Your task to perform on an android device: empty trash in the gmail app Image 0: 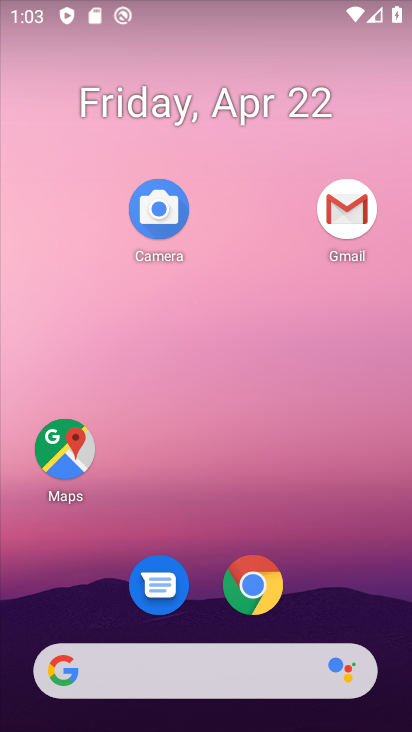
Step 0: click (348, 204)
Your task to perform on an android device: empty trash in the gmail app Image 1: 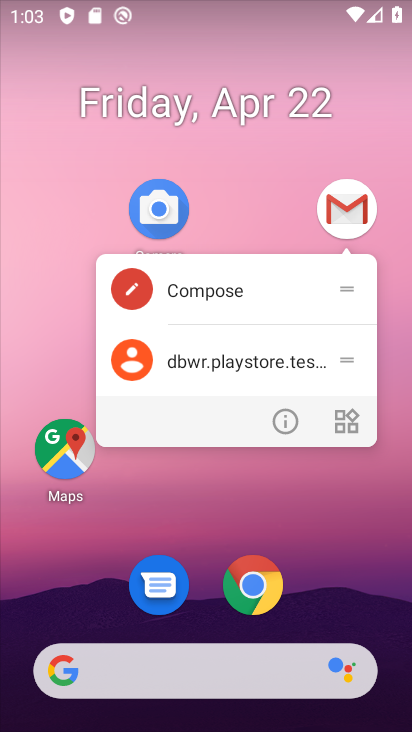
Step 1: click (348, 204)
Your task to perform on an android device: empty trash in the gmail app Image 2: 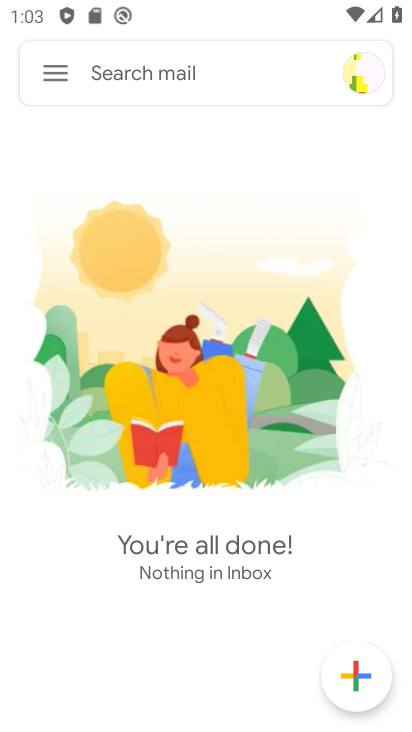
Step 2: click (53, 67)
Your task to perform on an android device: empty trash in the gmail app Image 3: 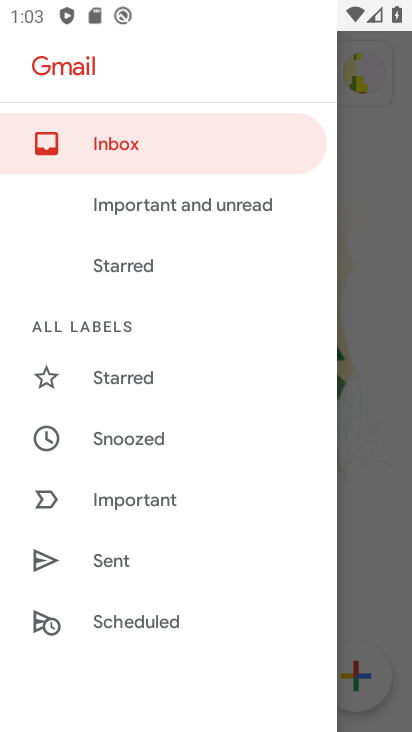
Step 3: drag from (211, 579) to (234, 135)
Your task to perform on an android device: empty trash in the gmail app Image 4: 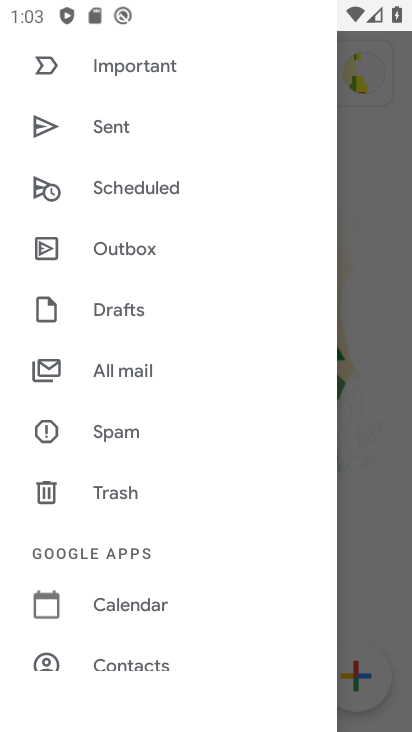
Step 4: click (167, 484)
Your task to perform on an android device: empty trash in the gmail app Image 5: 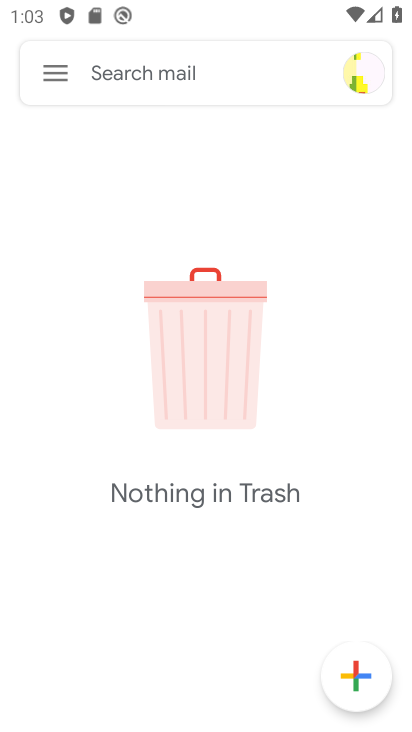
Step 5: task complete